Your task to perform on an android device: clear history in the chrome app Image 0: 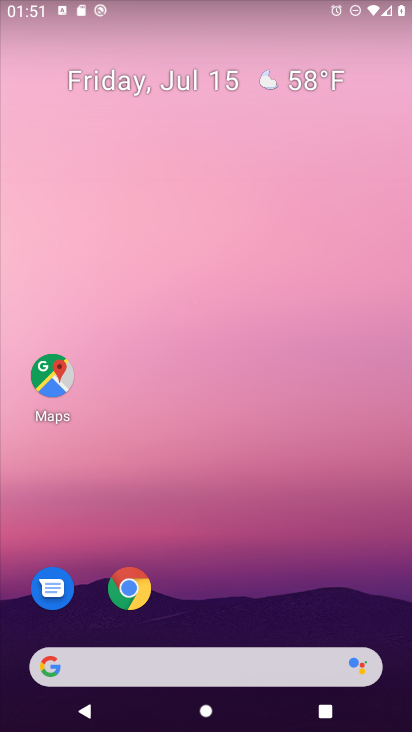
Step 0: click (128, 586)
Your task to perform on an android device: clear history in the chrome app Image 1: 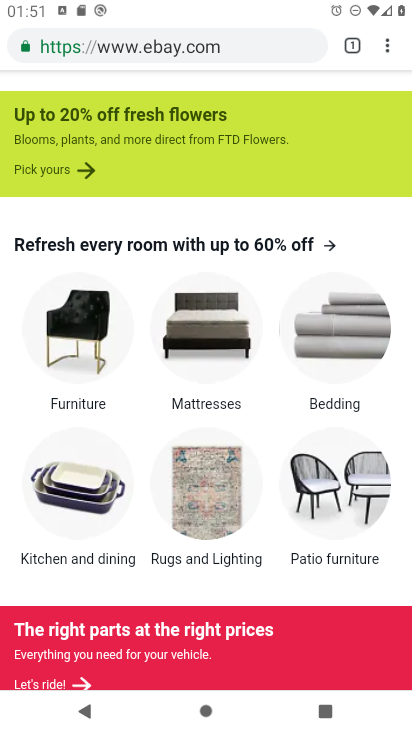
Step 1: click (385, 48)
Your task to perform on an android device: clear history in the chrome app Image 2: 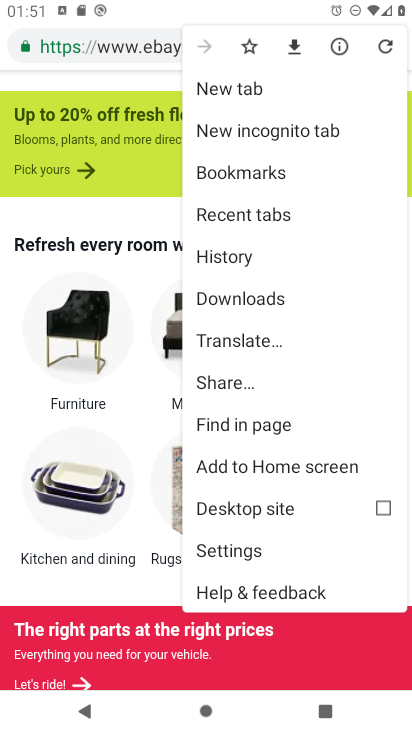
Step 2: click (233, 245)
Your task to perform on an android device: clear history in the chrome app Image 3: 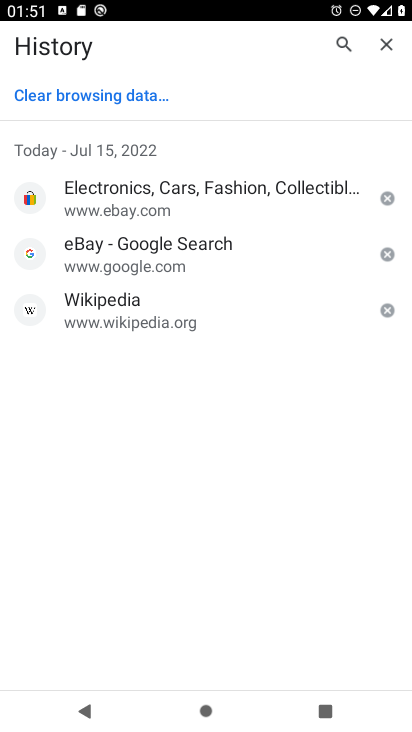
Step 3: click (86, 93)
Your task to perform on an android device: clear history in the chrome app Image 4: 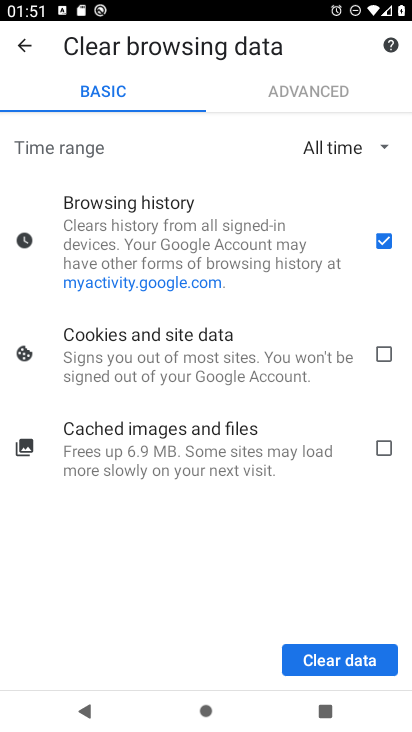
Step 4: click (333, 661)
Your task to perform on an android device: clear history in the chrome app Image 5: 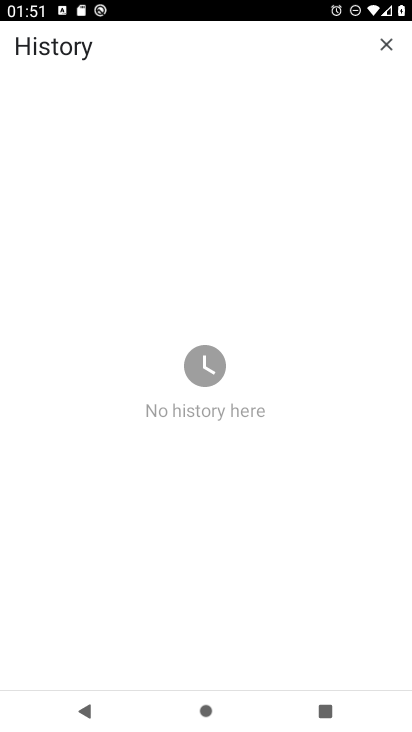
Step 5: task complete